Your task to perform on an android device: Go to Yahoo.com Image 0: 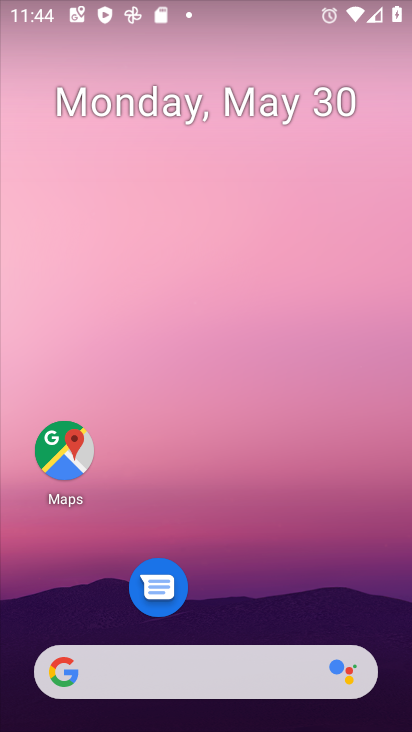
Step 0: drag from (204, 638) to (179, 32)
Your task to perform on an android device: Go to Yahoo.com Image 1: 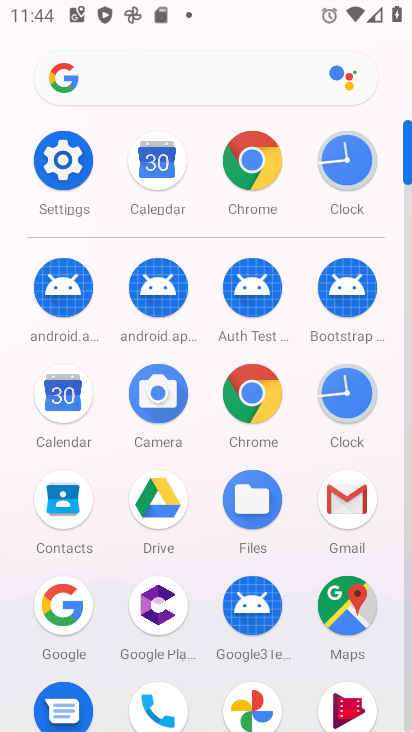
Step 1: click (237, 389)
Your task to perform on an android device: Go to Yahoo.com Image 2: 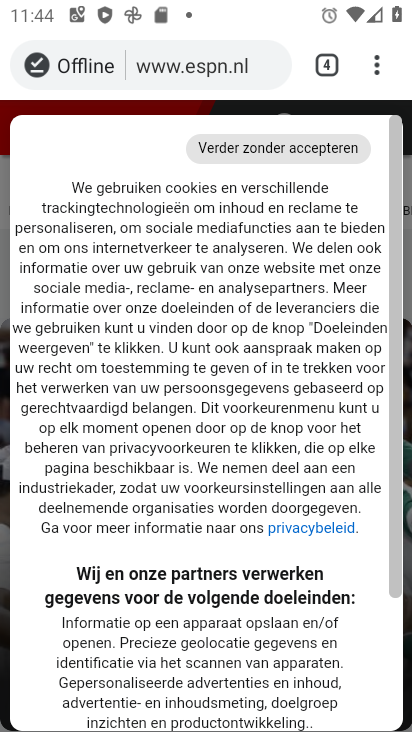
Step 2: click (319, 72)
Your task to perform on an android device: Go to Yahoo.com Image 3: 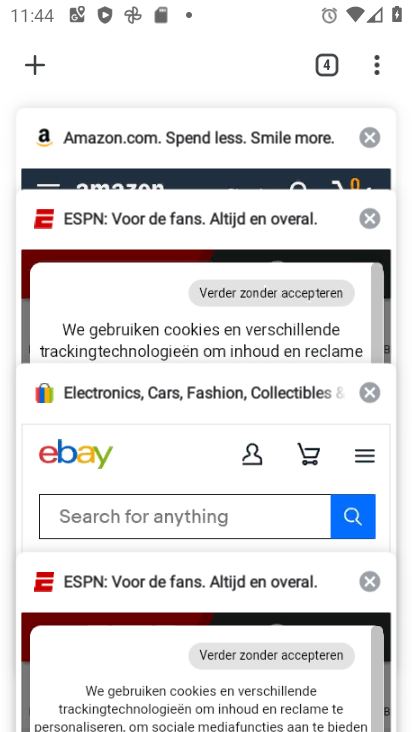
Step 3: click (26, 53)
Your task to perform on an android device: Go to Yahoo.com Image 4: 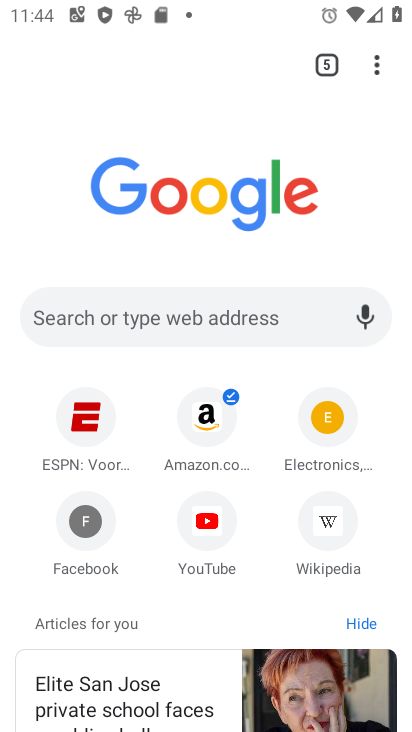
Step 4: click (199, 308)
Your task to perform on an android device: Go to Yahoo.com Image 5: 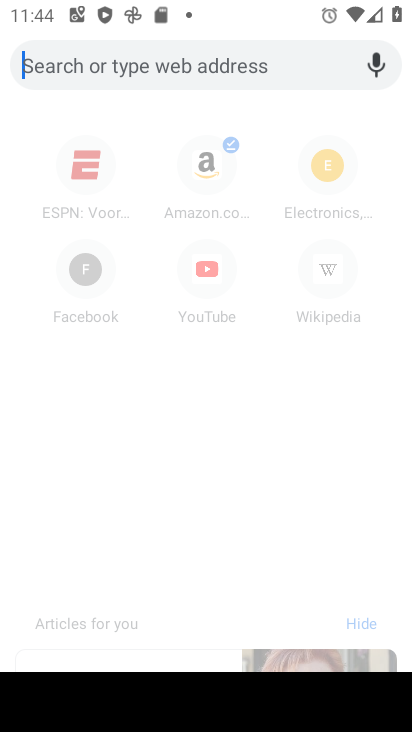
Step 5: type "yahoo"
Your task to perform on an android device: Go to Yahoo.com Image 6: 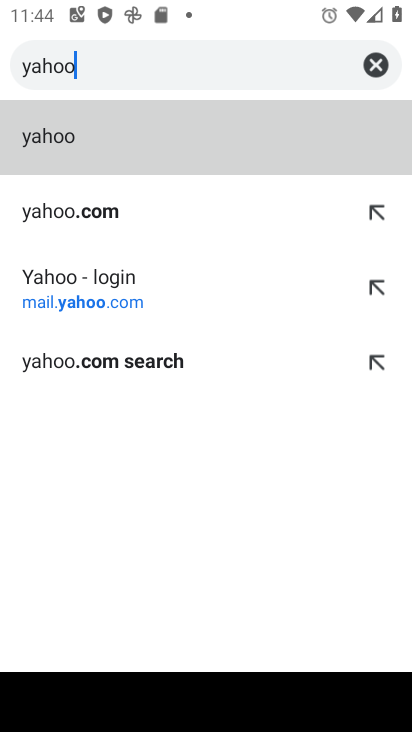
Step 6: click (136, 274)
Your task to perform on an android device: Go to Yahoo.com Image 7: 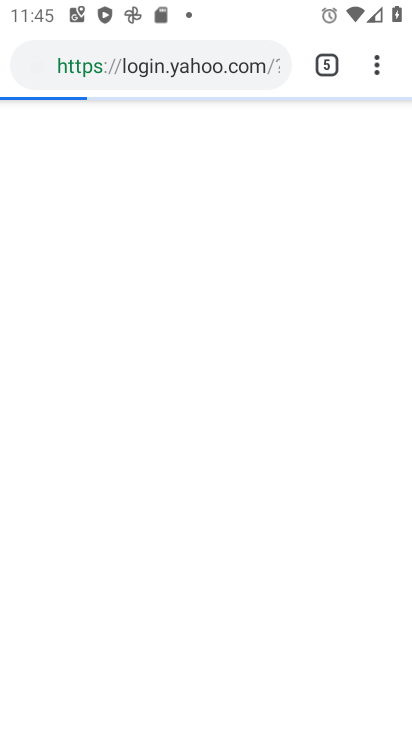
Step 7: task complete